Your task to perform on an android device: Open accessibility settings Image 0: 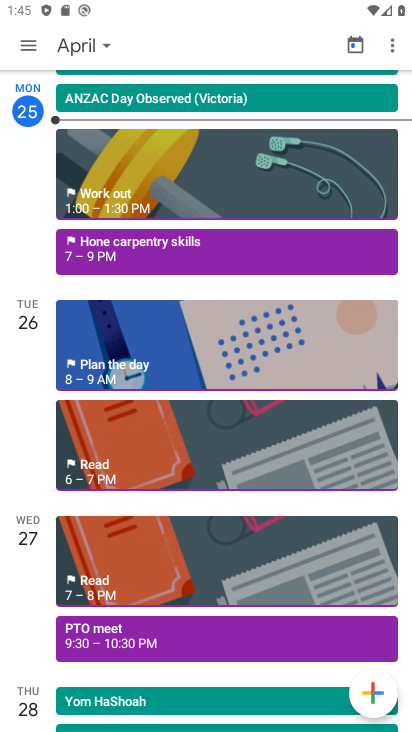
Step 0: press home button
Your task to perform on an android device: Open accessibility settings Image 1: 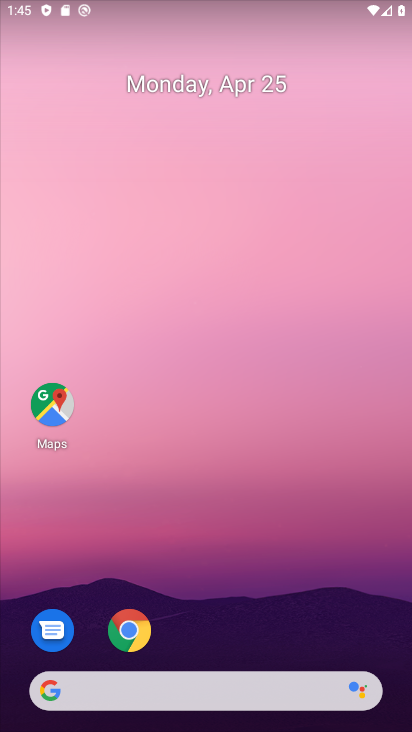
Step 1: drag from (235, 640) to (237, 21)
Your task to perform on an android device: Open accessibility settings Image 2: 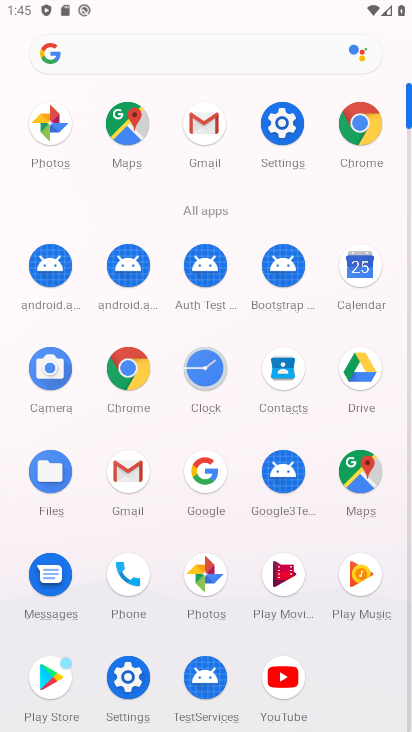
Step 2: click (293, 128)
Your task to perform on an android device: Open accessibility settings Image 3: 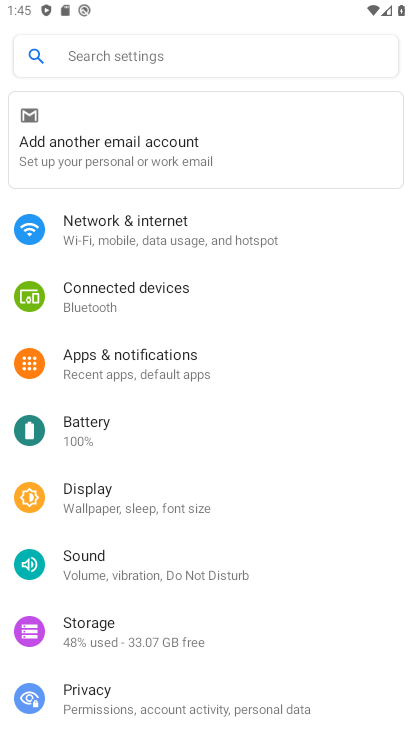
Step 3: drag from (107, 637) to (172, 259)
Your task to perform on an android device: Open accessibility settings Image 4: 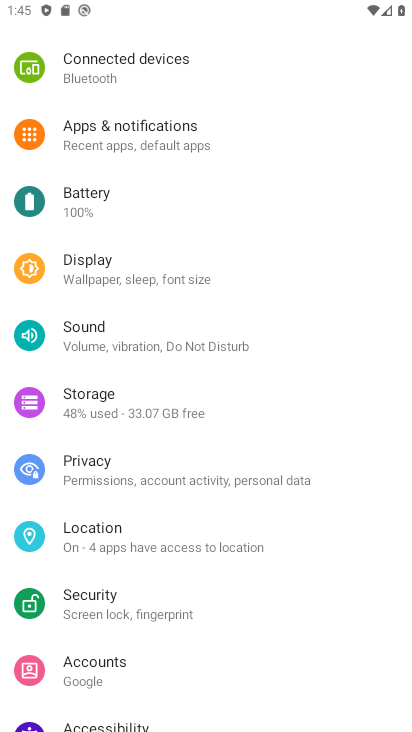
Step 4: drag from (83, 672) to (221, 64)
Your task to perform on an android device: Open accessibility settings Image 5: 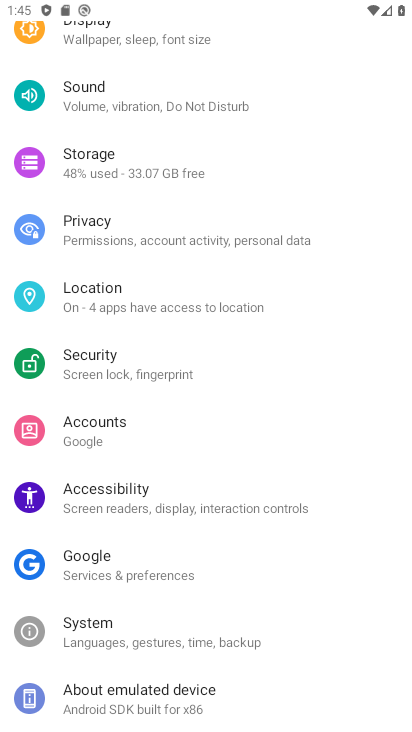
Step 5: click (82, 510)
Your task to perform on an android device: Open accessibility settings Image 6: 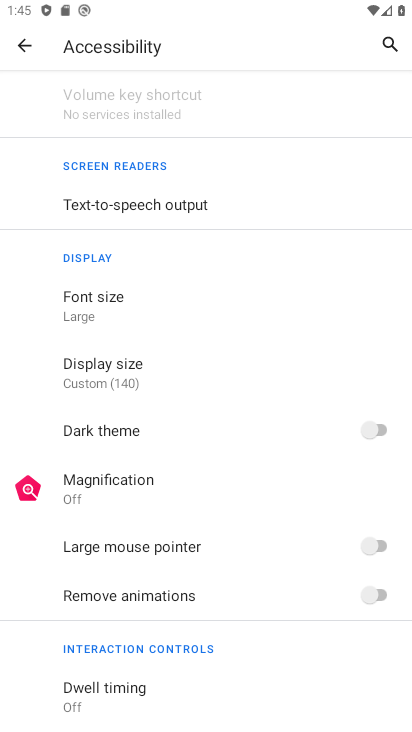
Step 6: task complete